Your task to perform on an android device: open chrome privacy settings Image 0: 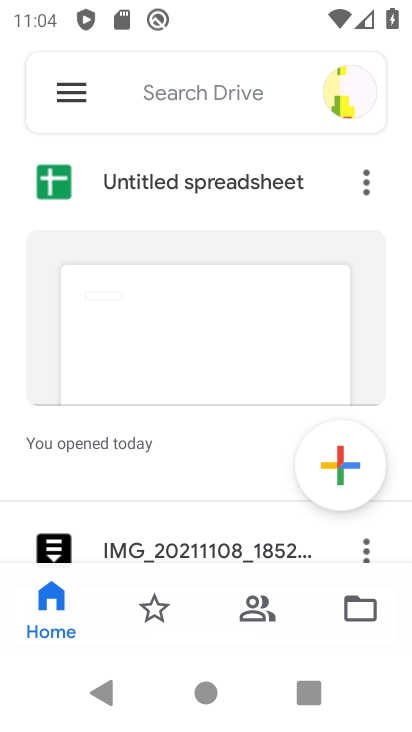
Step 0: press back button
Your task to perform on an android device: open chrome privacy settings Image 1: 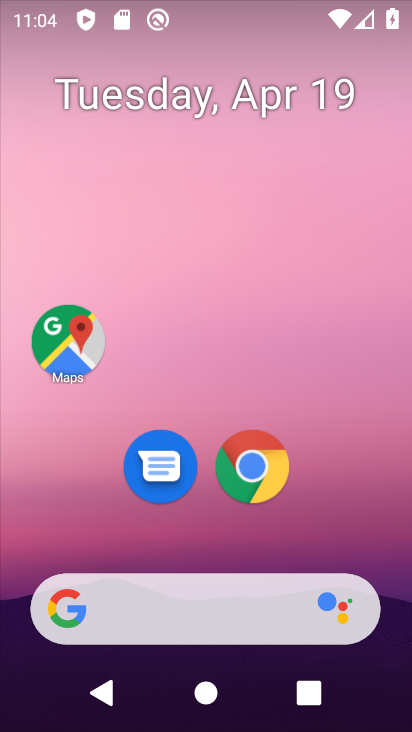
Step 1: click (252, 471)
Your task to perform on an android device: open chrome privacy settings Image 2: 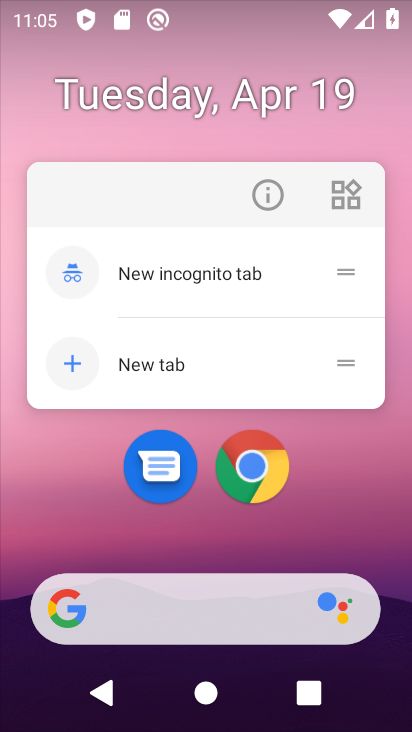
Step 2: click (254, 462)
Your task to perform on an android device: open chrome privacy settings Image 3: 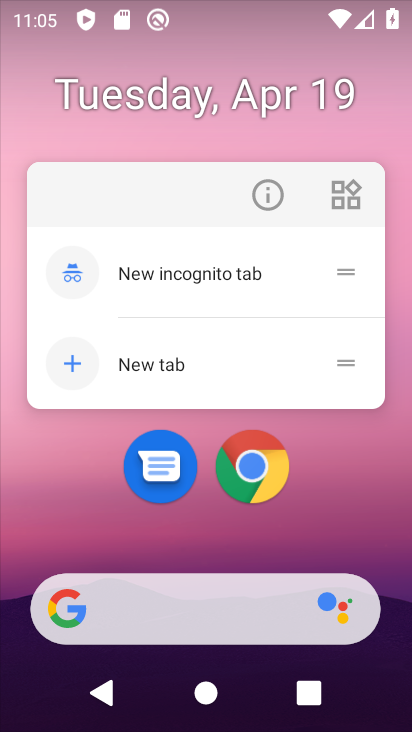
Step 3: click (256, 463)
Your task to perform on an android device: open chrome privacy settings Image 4: 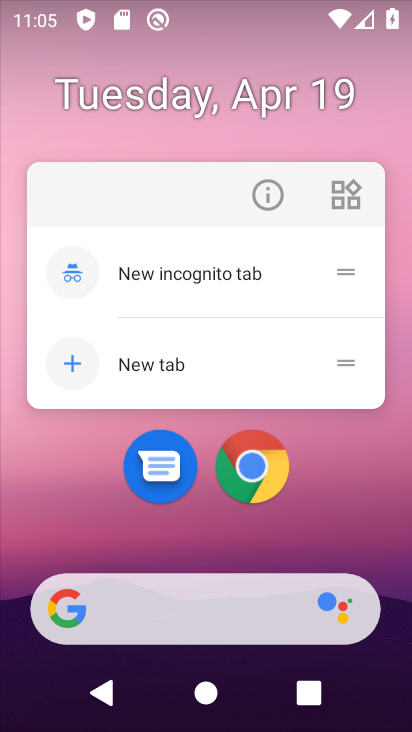
Step 4: click (257, 464)
Your task to perform on an android device: open chrome privacy settings Image 5: 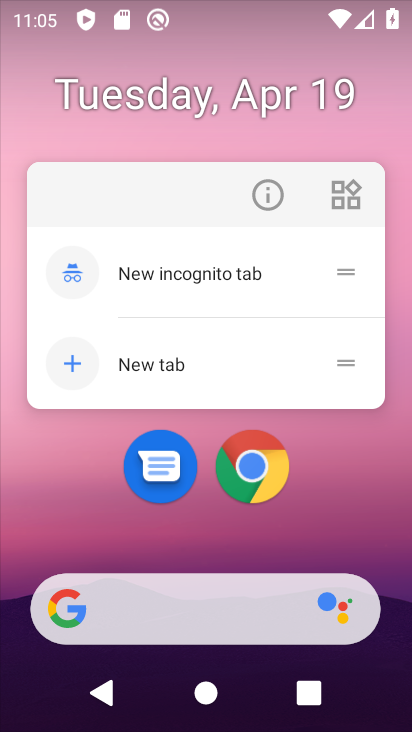
Step 5: click (246, 476)
Your task to perform on an android device: open chrome privacy settings Image 6: 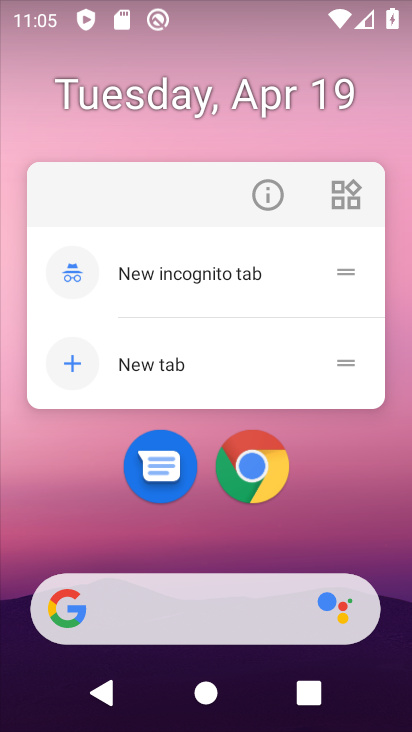
Step 6: click (250, 477)
Your task to perform on an android device: open chrome privacy settings Image 7: 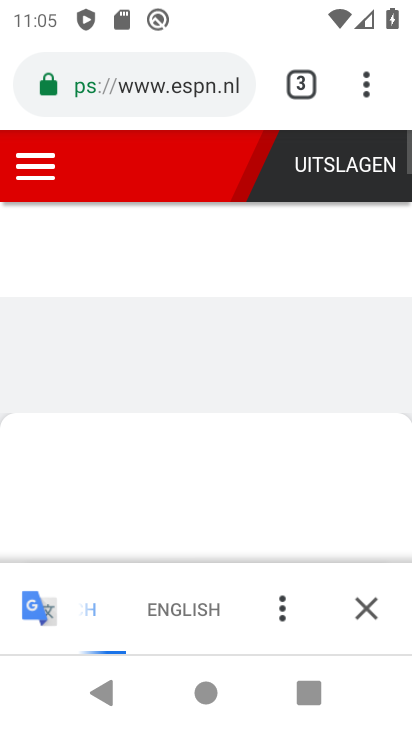
Step 7: drag from (366, 103) to (253, 495)
Your task to perform on an android device: open chrome privacy settings Image 8: 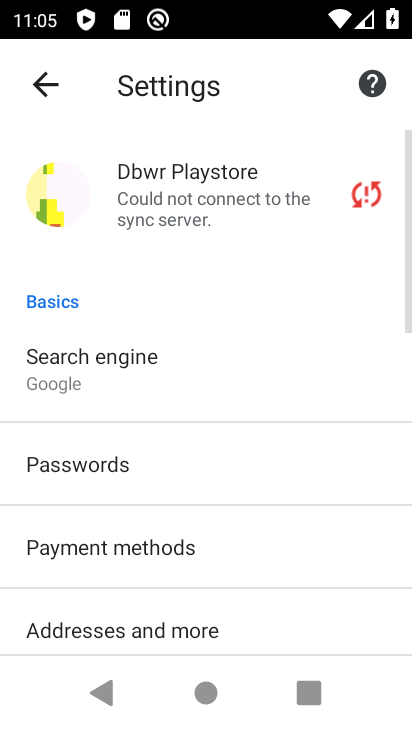
Step 8: drag from (134, 575) to (324, 154)
Your task to perform on an android device: open chrome privacy settings Image 9: 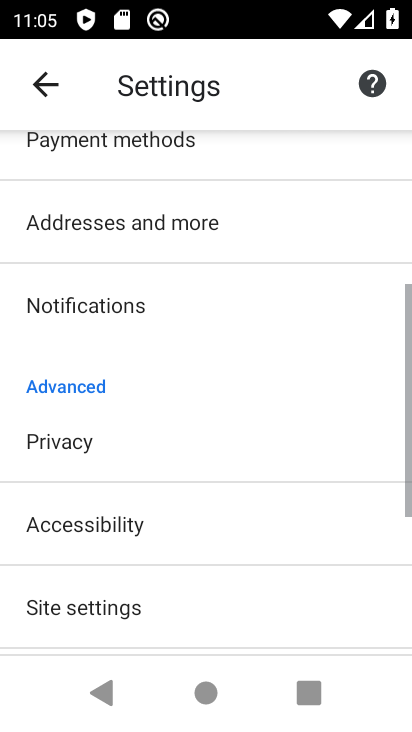
Step 9: drag from (207, 577) to (339, 205)
Your task to perform on an android device: open chrome privacy settings Image 10: 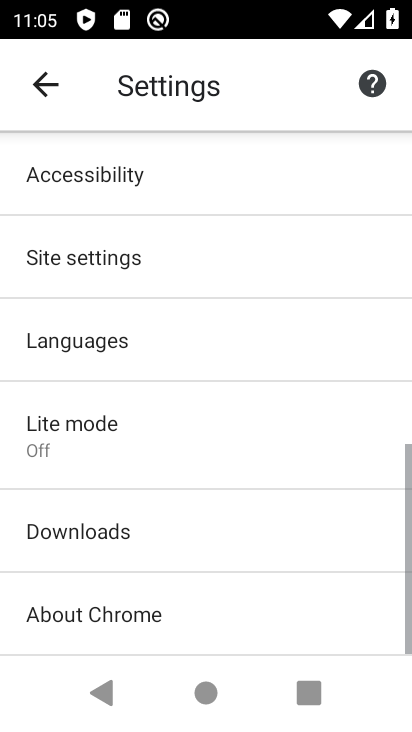
Step 10: drag from (194, 336) to (180, 572)
Your task to perform on an android device: open chrome privacy settings Image 11: 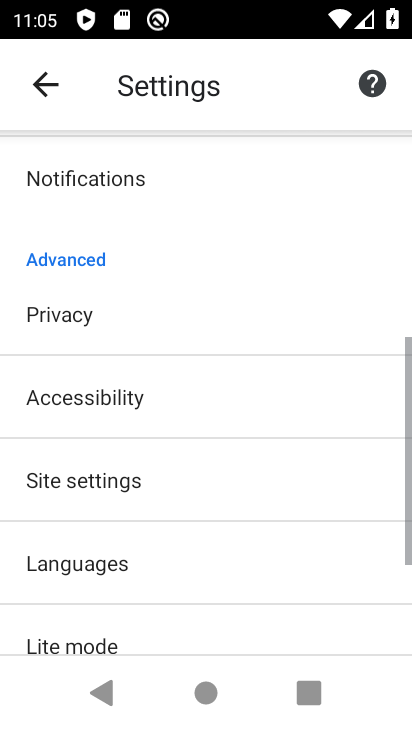
Step 11: click (124, 335)
Your task to perform on an android device: open chrome privacy settings Image 12: 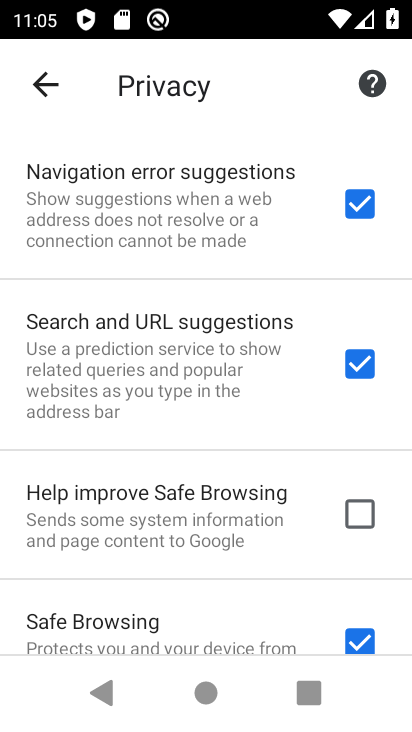
Step 12: task complete